Your task to perform on an android device: What's on my calendar today? Image 0: 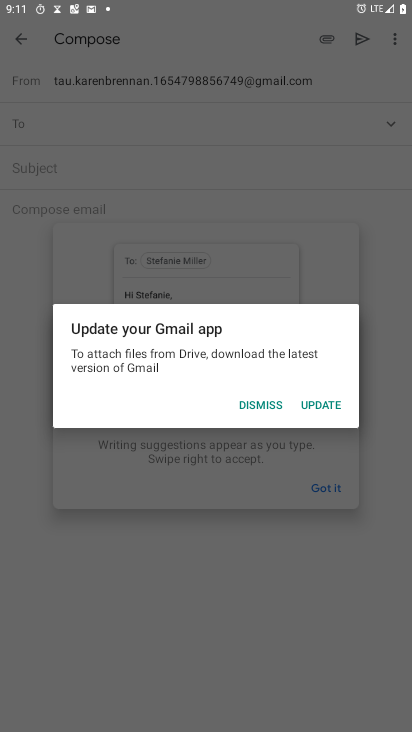
Step 0: press home button
Your task to perform on an android device: What's on my calendar today? Image 1: 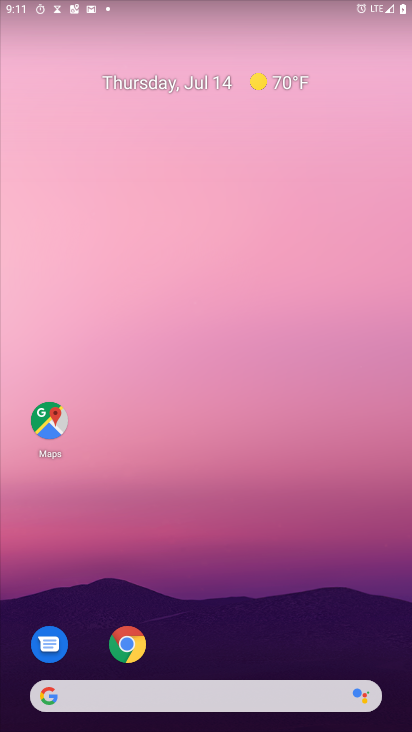
Step 1: drag from (148, 694) to (338, 104)
Your task to perform on an android device: What's on my calendar today? Image 2: 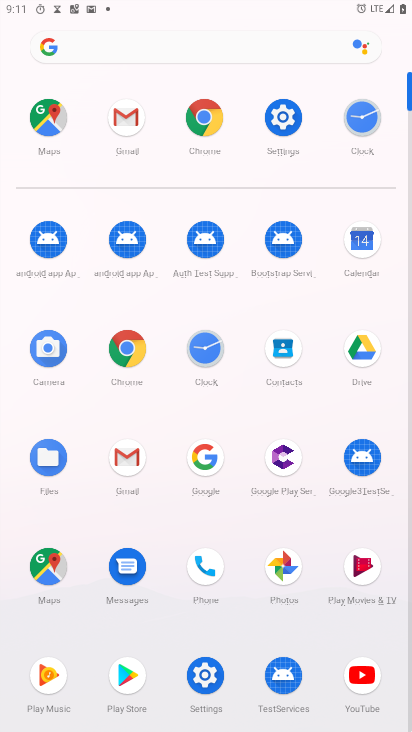
Step 2: click (360, 243)
Your task to perform on an android device: What's on my calendar today? Image 3: 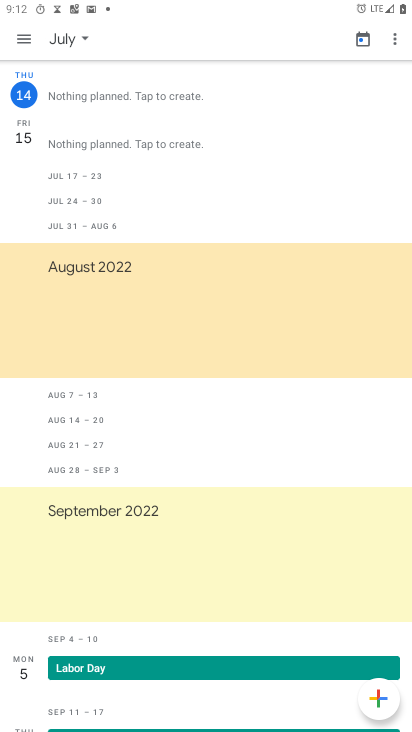
Step 3: task complete